Your task to perform on an android device: open app "VLC for Android" (install if not already installed), go to login, and select forgot password Image 0: 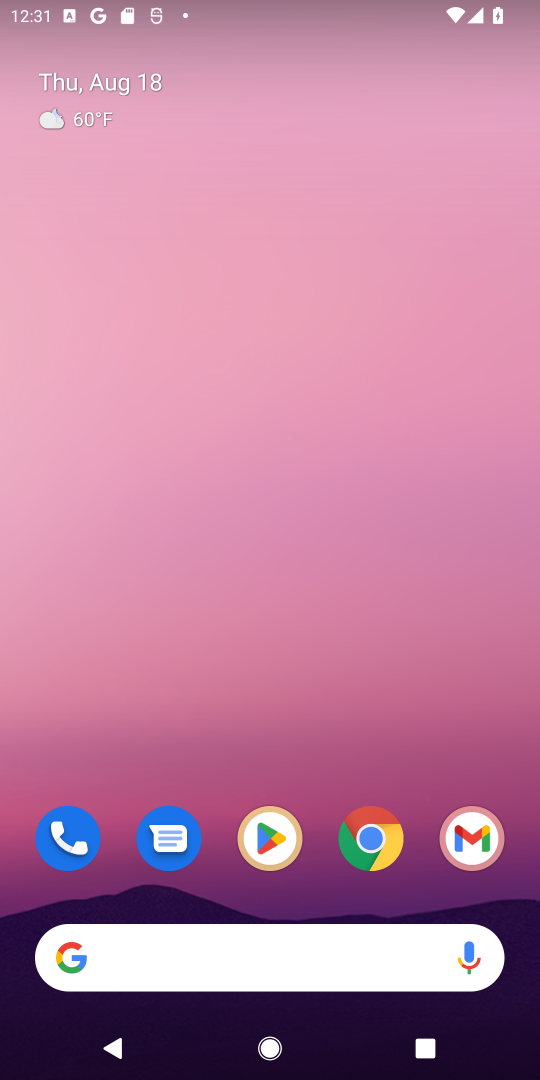
Step 0: click (284, 839)
Your task to perform on an android device: open app "VLC for Android" (install if not already installed), go to login, and select forgot password Image 1: 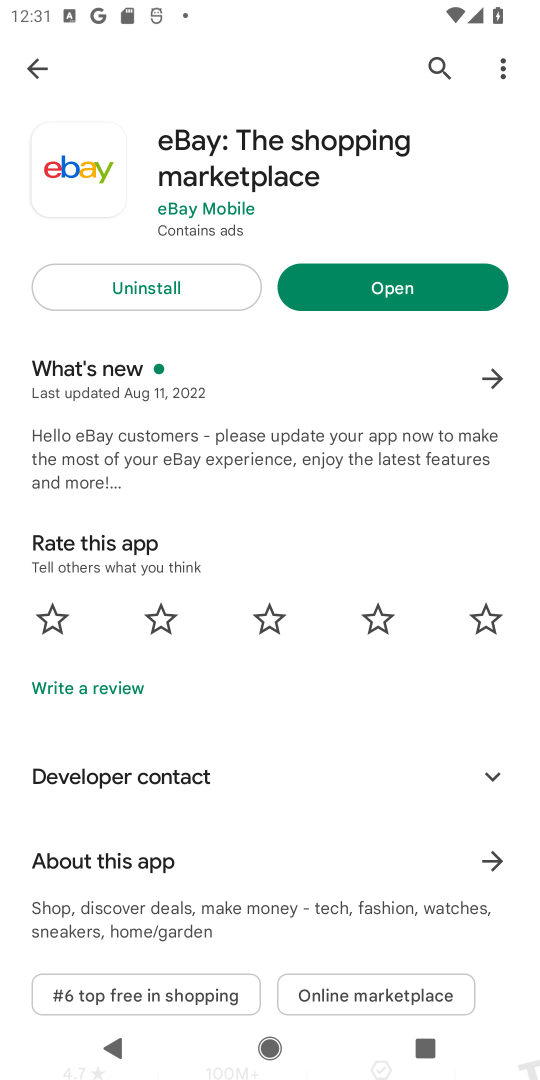
Step 1: click (444, 76)
Your task to perform on an android device: open app "VLC for Android" (install if not already installed), go to login, and select forgot password Image 2: 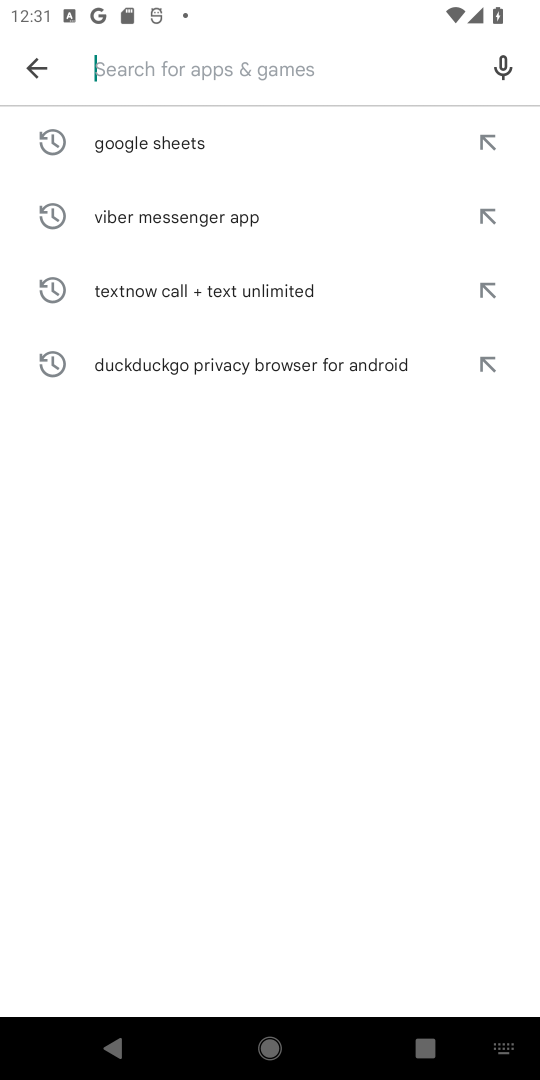
Step 2: type "VLC for Android"
Your task to perform on an android device: open app "VLC for Android" (install if not already installed), go to login, and select forgot password Image 3: 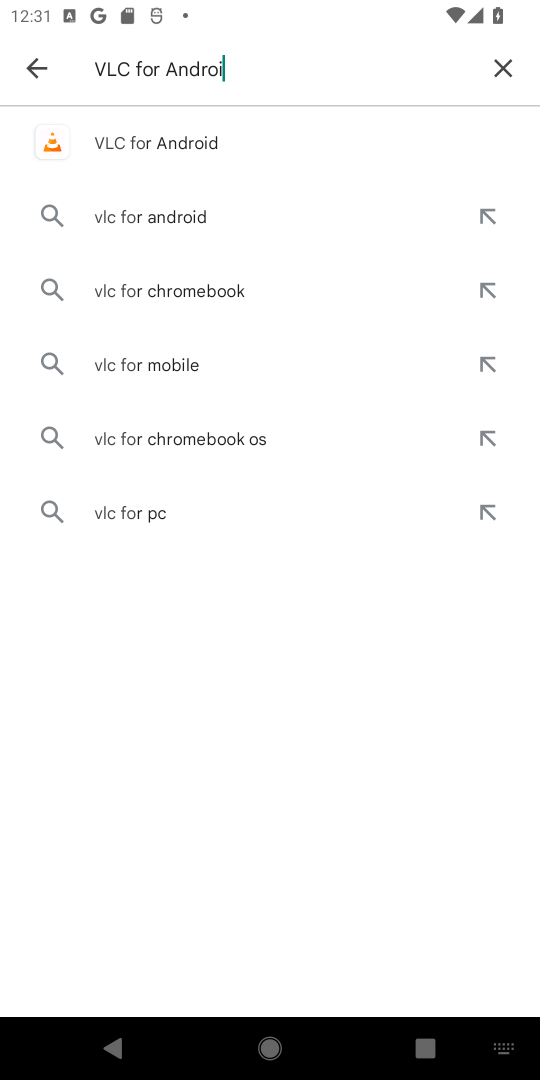
Step 3: type ""
Your task to perform on an android device: open app "VLC for Android" (install if not already installed), go to login, and select forgot password Image 4: 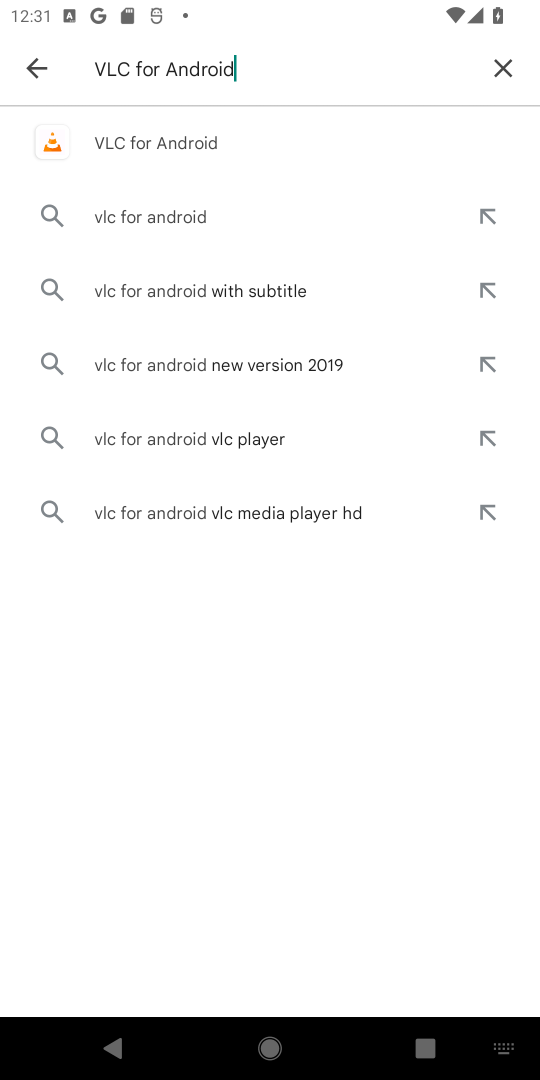
Step 4: click (225, 140)
Your task to perform on an android device: open app "VLC for Android" (install if not already installed), go to login, and select forgot password Image 5: 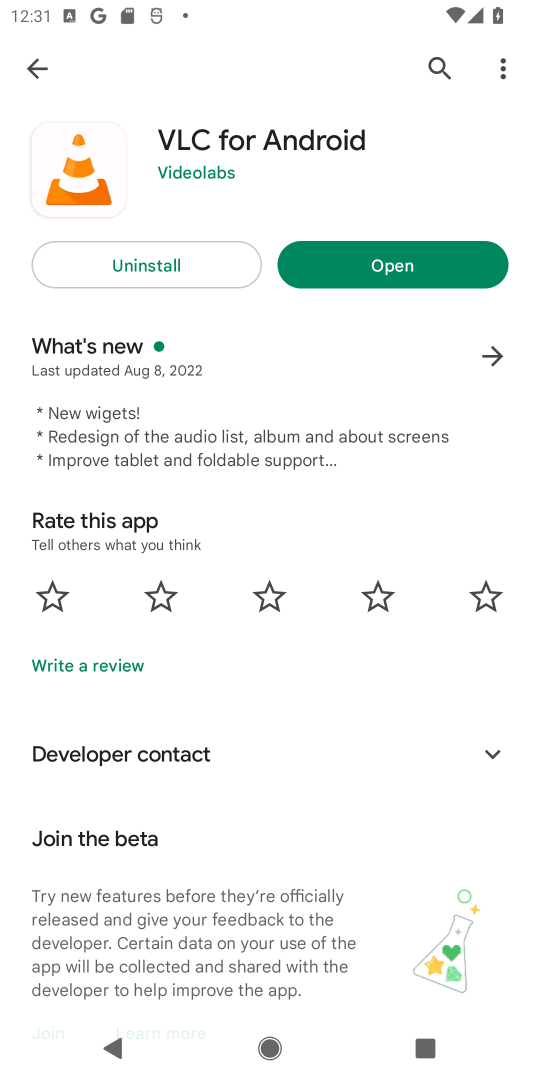
Step 5: click (340, 268)
Your task to perform on an android device: open app "VLC for Android" (install if not already installed), go to login, and select forgot password Image 6: 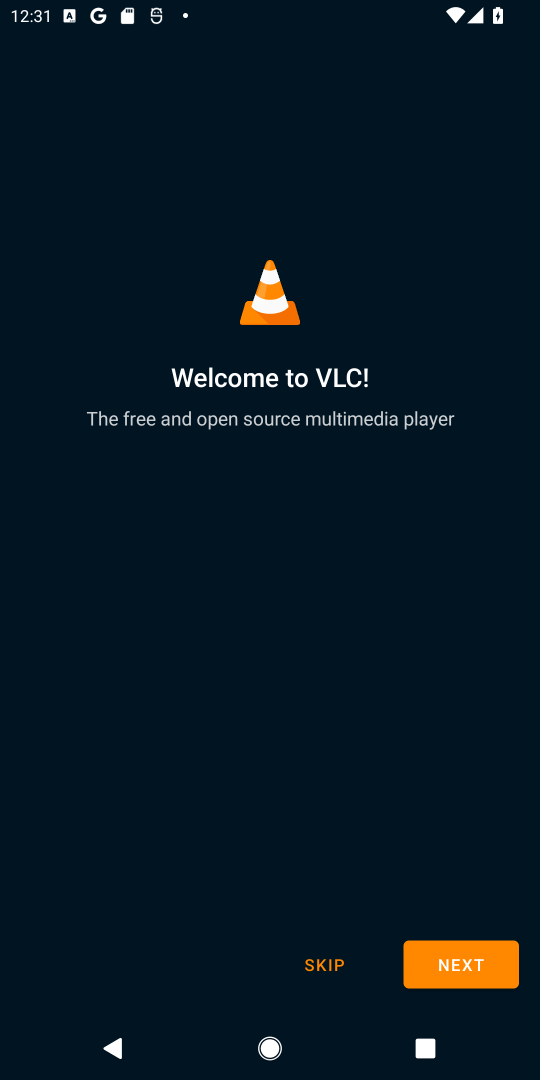
Step 6: task complete